Your task to perform on an android device: toggle pop-ups in chrome Image 0: 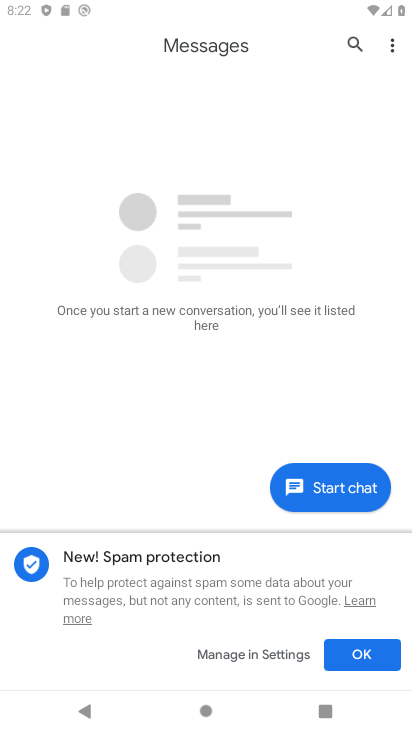
Step 0: press home button
Your task to perform on an android device: toggle pop-ups in chrome Image 1: 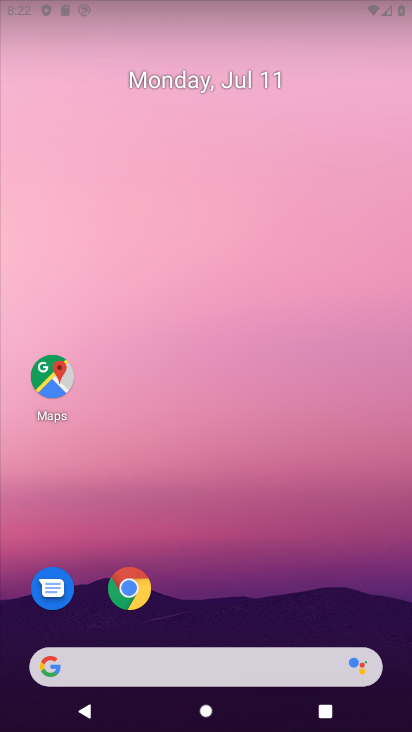
Step 1: click (139, 593)
Your task to perform on an android device: toggle pop-ups in chrome Image 2: 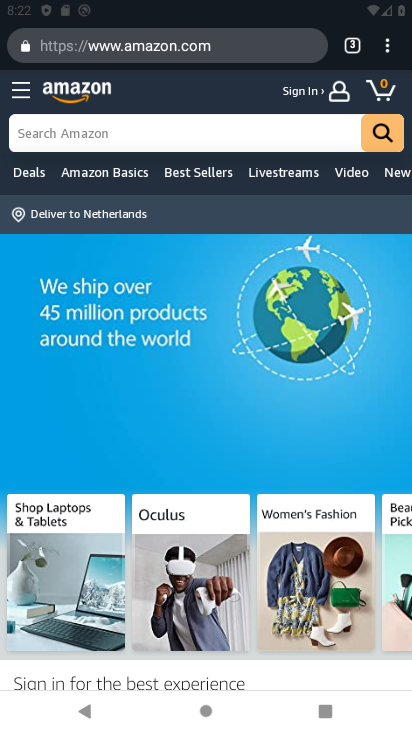
Step 2: click (388, 42)
Your task to perform on an android device: toggle pop-ups in chrome Image 3: 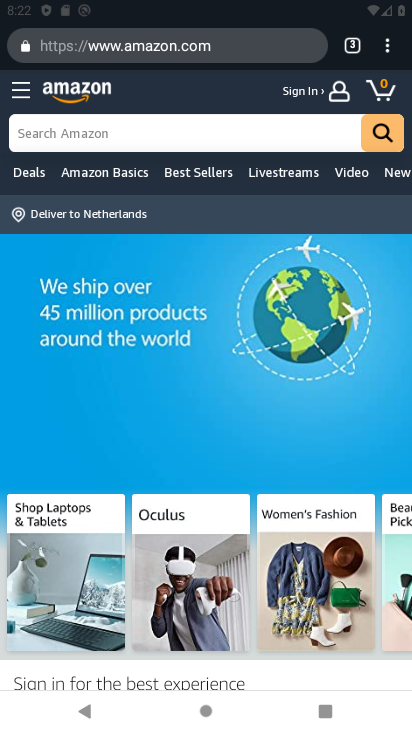
Step 3: click (384, 46)
Your task to perform on an android device: toggle pop-ups in chrome Image 4: 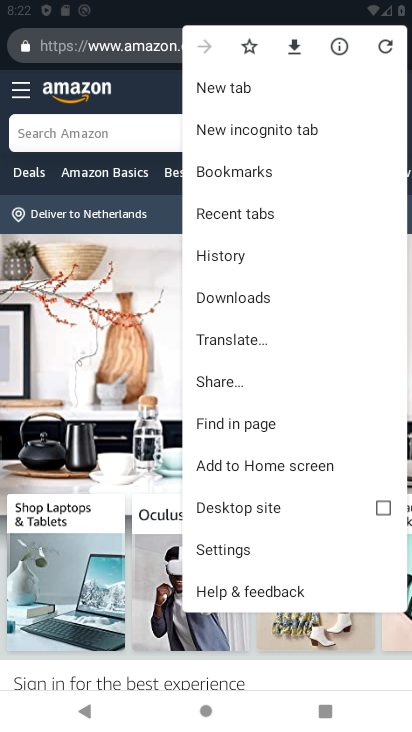
Step 4: click (237, 558)
Your task to perform on an android device: toggle pop-ups in chrome Image 5: 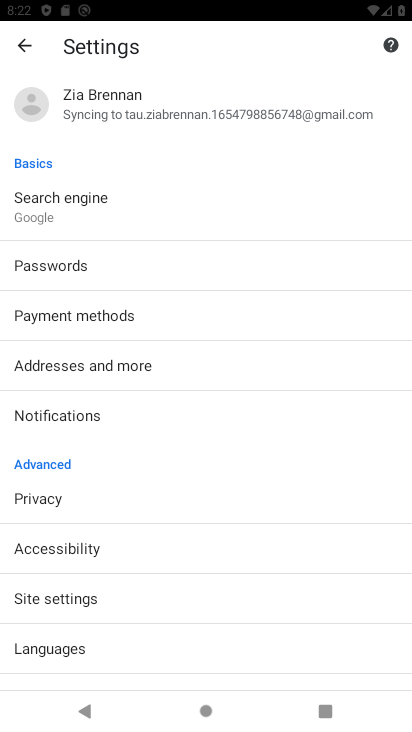
Step 5: click (98, 592)
Your task to perform on an android device: toggle pop-ups in chrome Image 6: 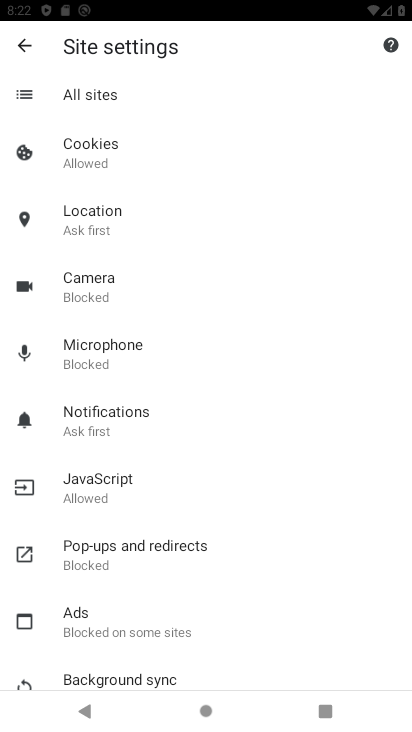
Step 6: click (112, 548)
Your task to perform on an android device: toggle pop-ups in chrome Image 7: 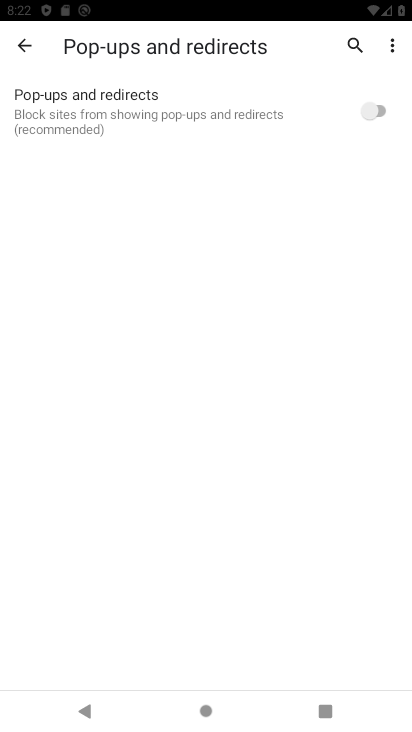
Step 7: click (371, 106)
Your task to perform on an android device: toggle pop-ups in chrome Image 8: 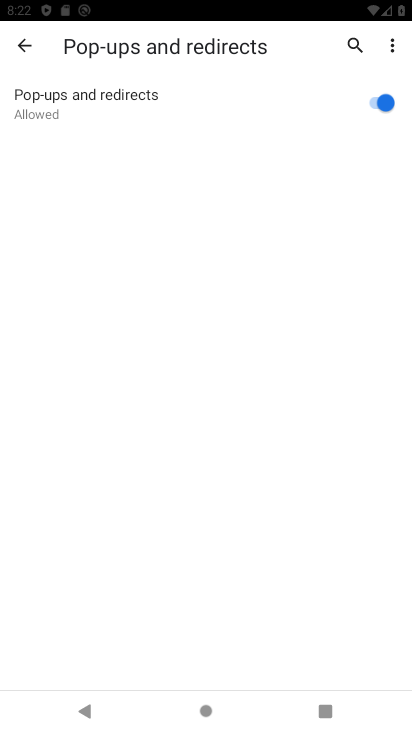
Step 8: task complete